Your task to perform on an android device: Search for usb-c to usb-a on target.com, select the first entry, add it to the cart, then select checkout. Image 0: 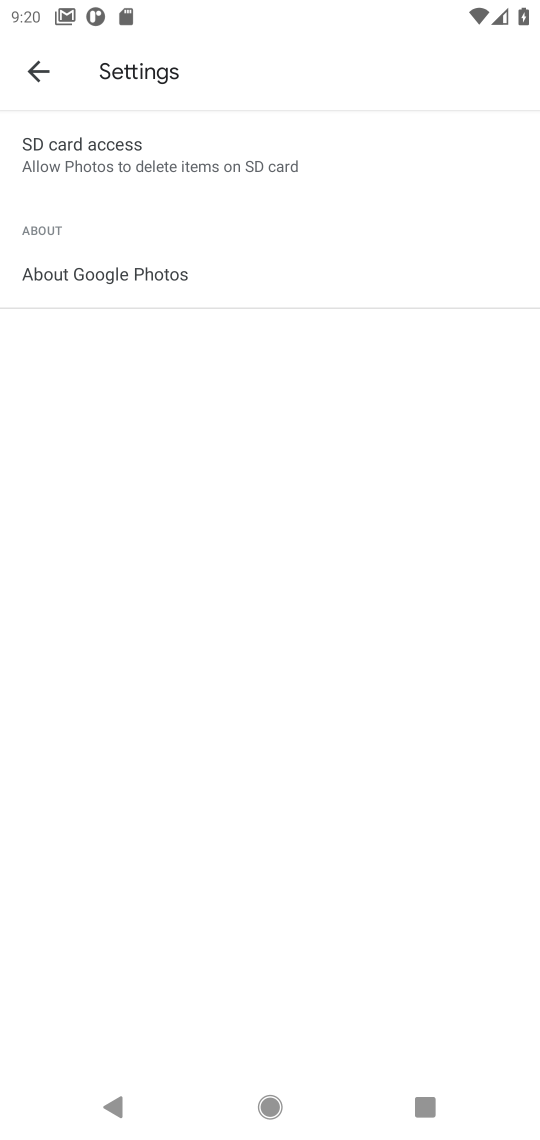
Step 0: press home button
Your task to perform on an android device: Search for usb-c to usb-a on target.com, select the first entry, add it to the cart, then select checkout. Image 1: 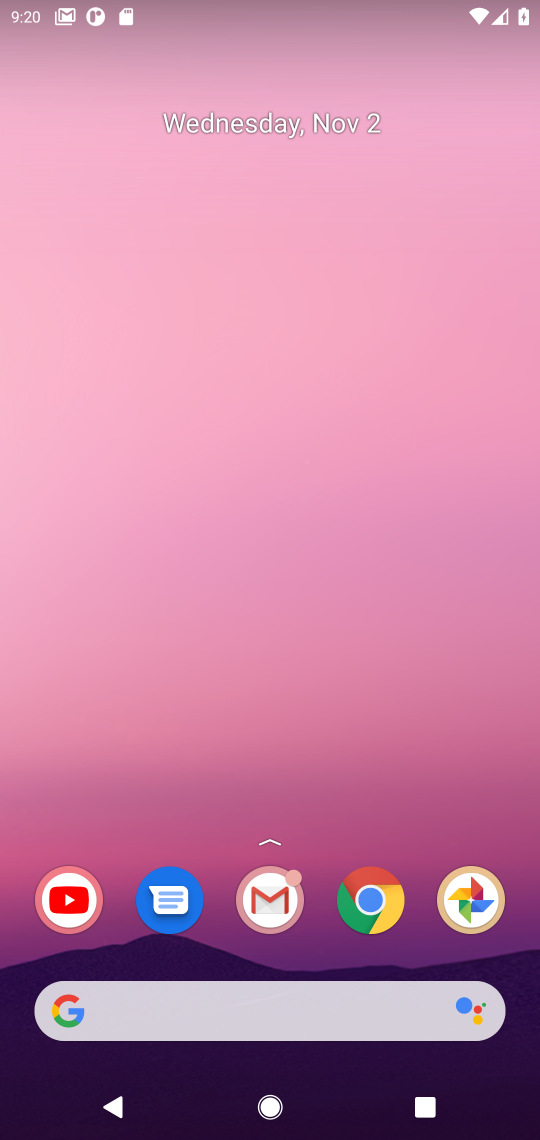
Step 1: click (383, 889)
Your task to perform on an android device: Search for usb-c to usb-a on target.com, select the first entry, add it to the cart, then select checkout. Image 2: 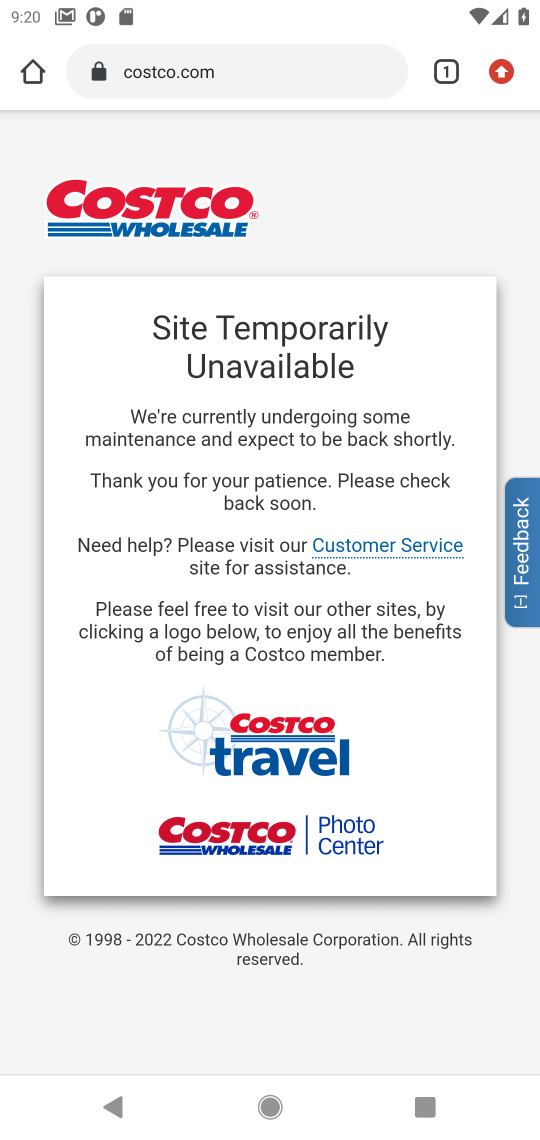
Step 2: click (175, 84)
Your task to perform on an android device: Search for usb-c to usb-a on target.com, select the first entry, add it to the cart, then select checkout. Image 3: 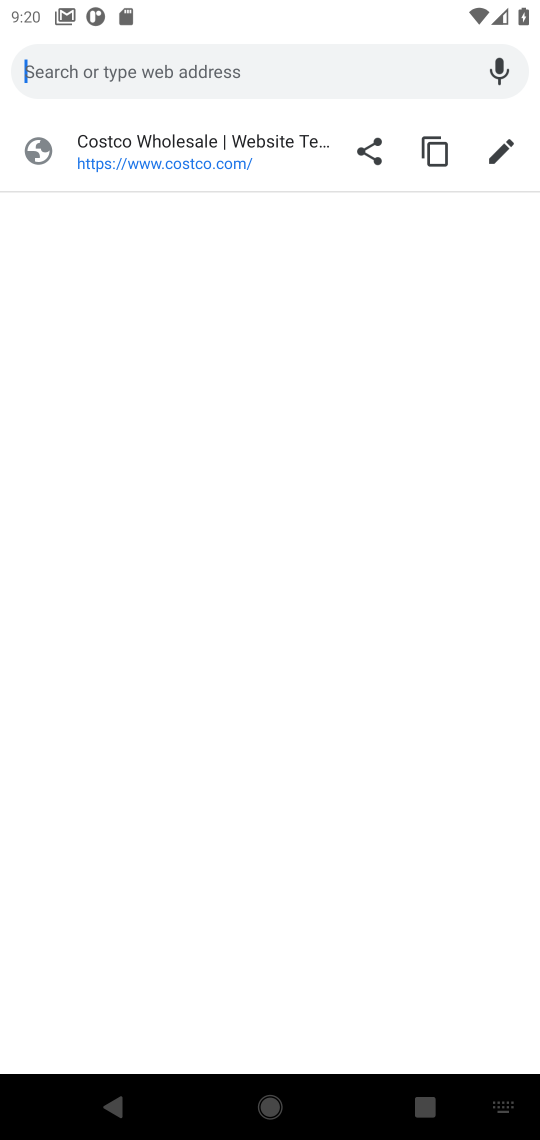
Step 3: type "target"
Your task to perform on an android device: Search for usb-c to usb-a on target.com, select the first entry, add it to the cart, then select checkout. Image 4: 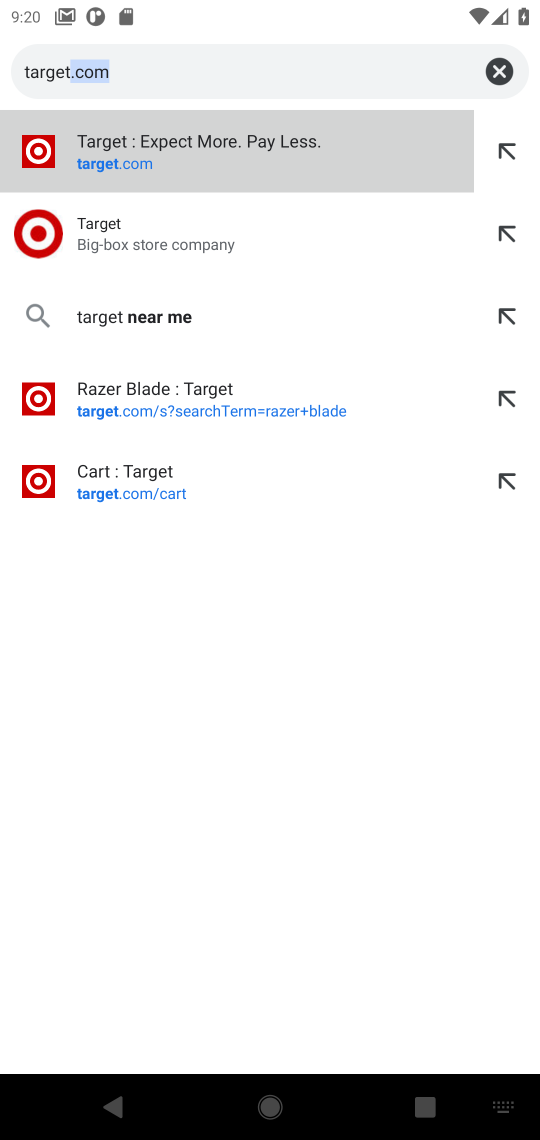
Step 4: click (118, 257)
Your task to perform on an android device: Search for usb-c to usb-a on target.com, select the first entry, add it to the cart, then select checkout. Image 5: 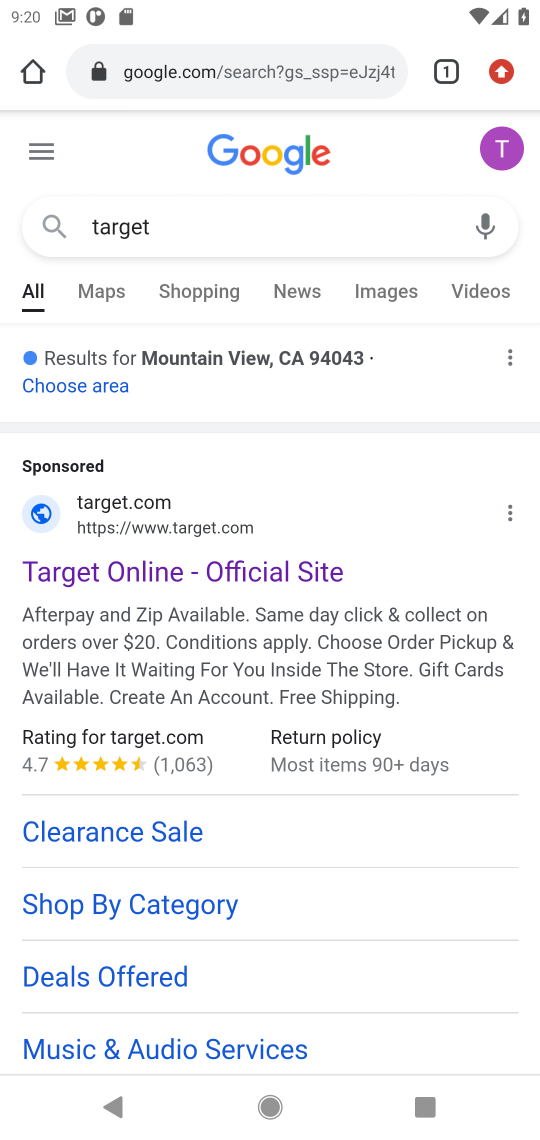
Step 5: click (137, 560)
Your task to perform on an android device: Search for usb-c to usb-a on target.com, select the first entry, add it to the cart, then select checkout. Image 6: 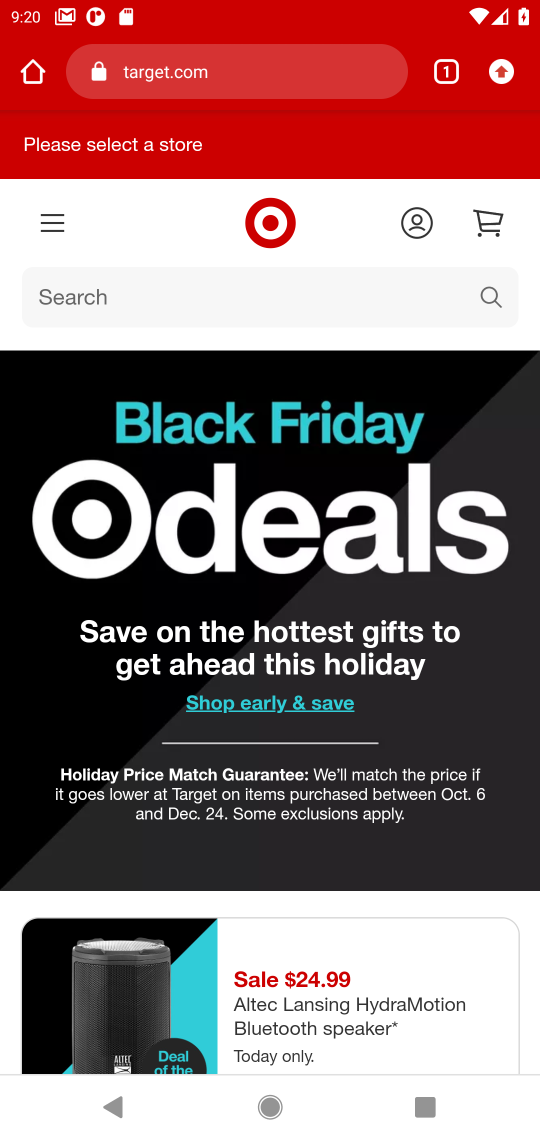
Step 6: click (202, 300)
Your task to perform on an android device: Search for usb-c to usb-a on target.com, select the first entry, add it to the cart, then select checkout. Image 7: 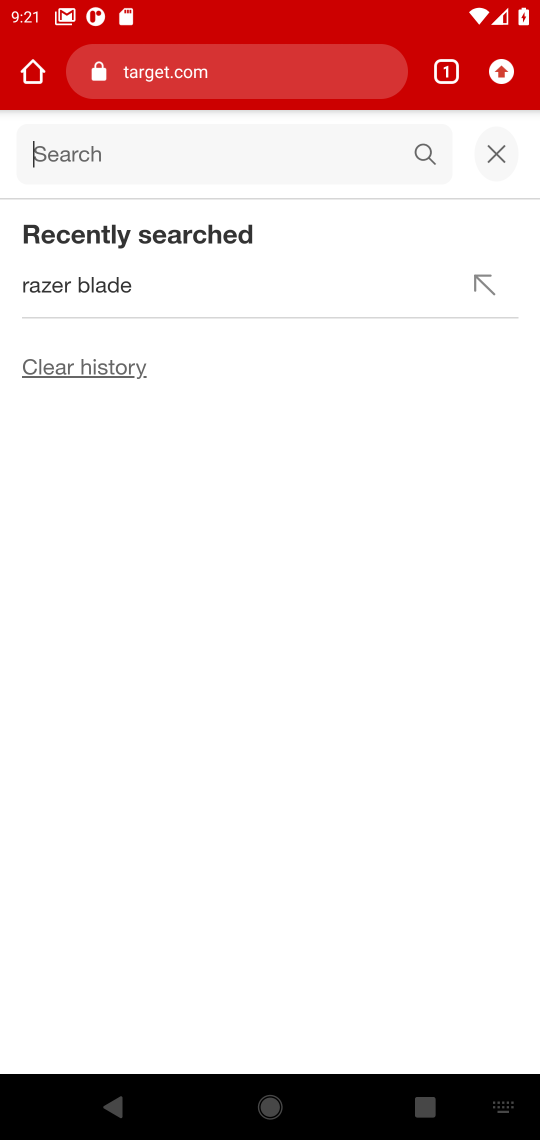
Step 7: type "usb-c to usb-a"
Your task to perform on an android device: Search for usb-c to usb-a on target.com, select the first entry, add it to the cart, then select checkout. Image 8: 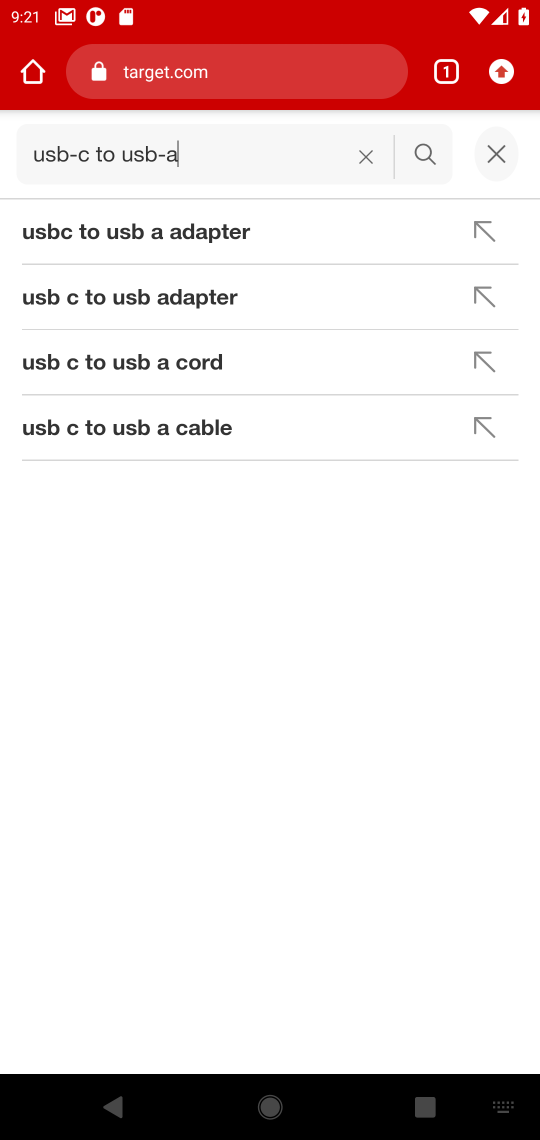
Step 8: click (424, 162)
Your task to perform on an android device: Search for usb-c to usb-a on target.com, select the first entry, add it to the cart, then select checkout. Image 9: 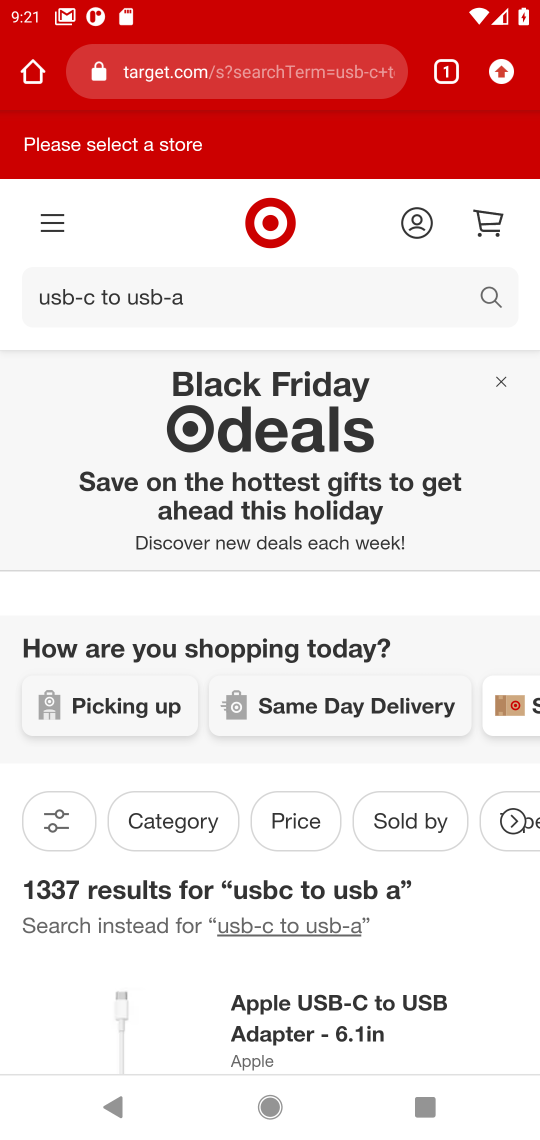
Step 9: drag from (438, 920) to (404, 209)
Your task to perform on an android device: Search for usb-c to usb-a on target.com, select the first entry, add it to the cart, then select checkout. Image 10: 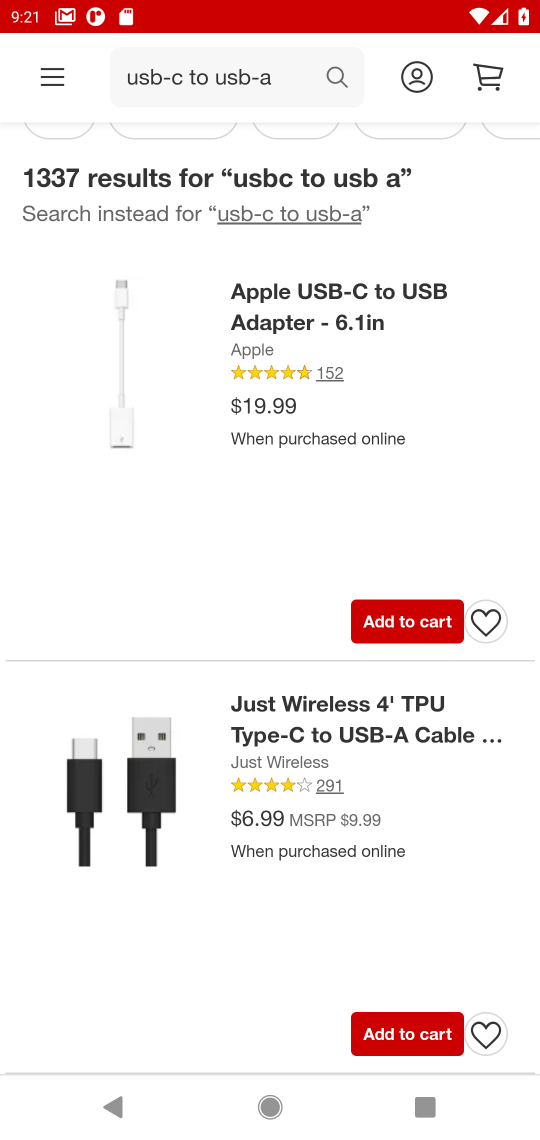
Step 10: click (387, 630)
Your task to perform on an android device: Search for usb-c to usb-a on target.com, select the first entry, add it to the cart, then select checkout. Image 11: 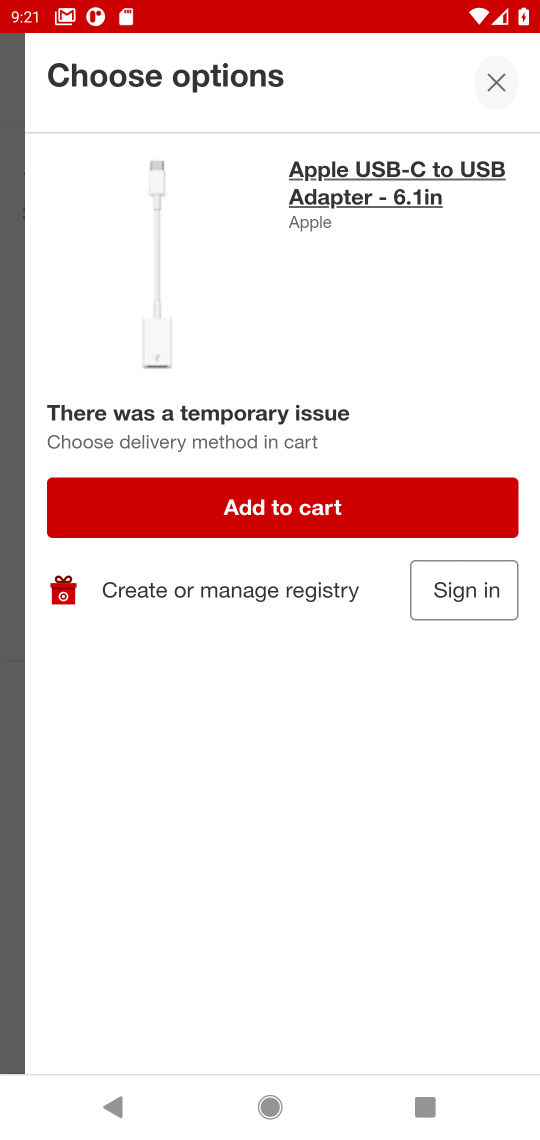
Step 11: click (249, 498)
Your task to perform on an android device: Search for usb-c to usb-a on target.com, select the first entry, add it to the cart, then select checkout. Image 12: 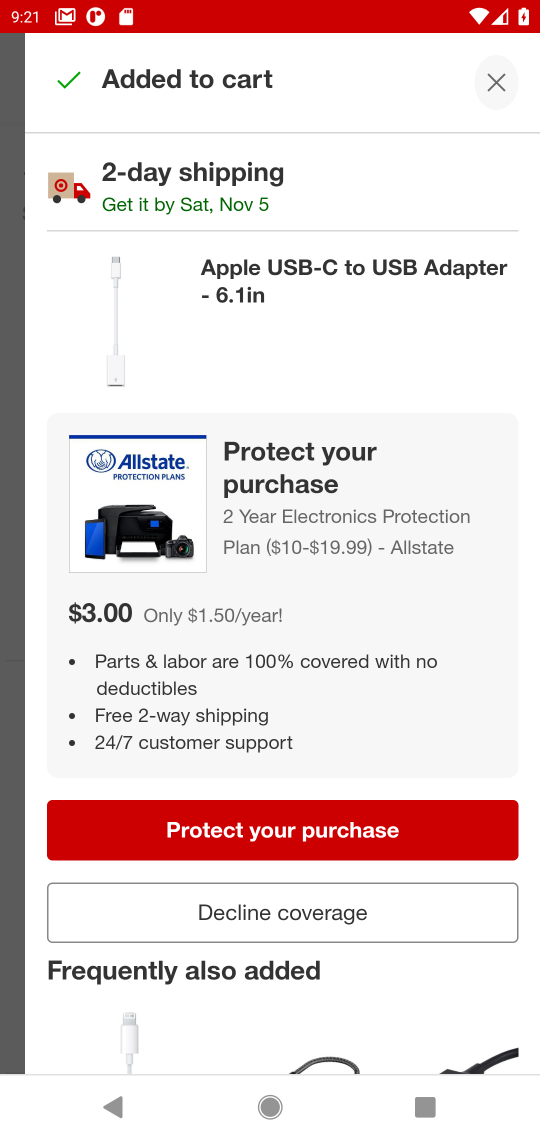
Step 12: click (492, 91)
Your task to perform on an android device: Search for usb-c to usb-a on target.com, select the first entry, add it to the cart, then select checkout. Image 13: 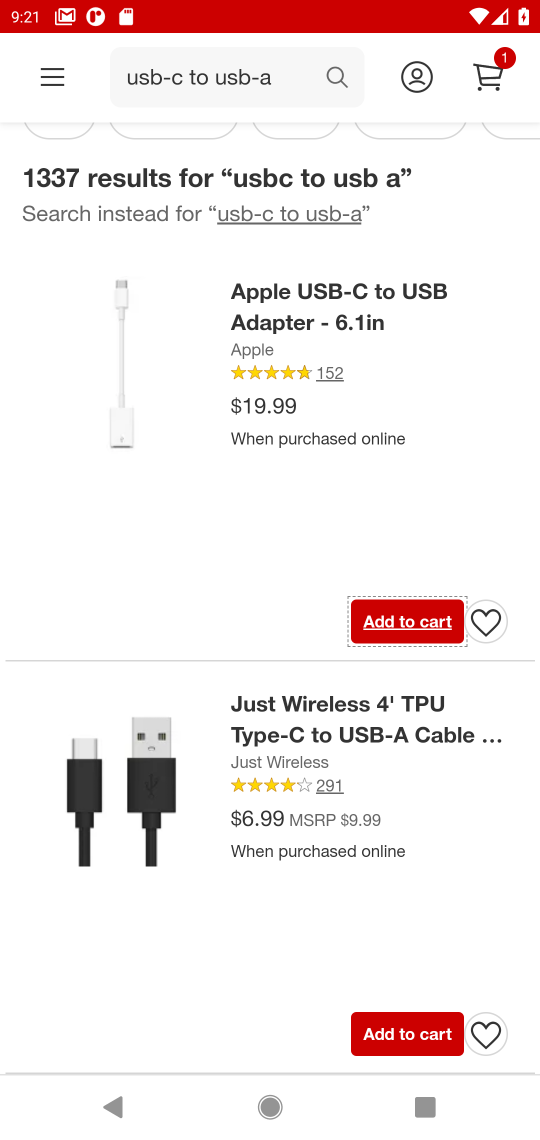
Step 13: click (492, 91)
Your task to perform on an android device: Search for usb-c to usb-a on target.com, select the first entry, add it to the cart, then select checkout. Image 14: 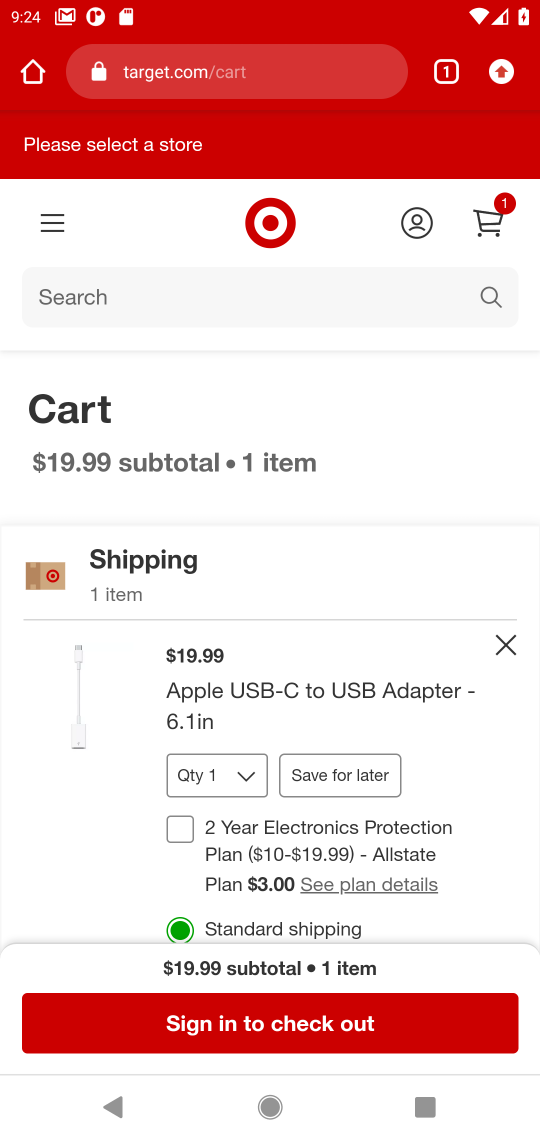
Step 14: task complete